Your task to perform on an android device: find snoozed emails in the gmail app Image 0: 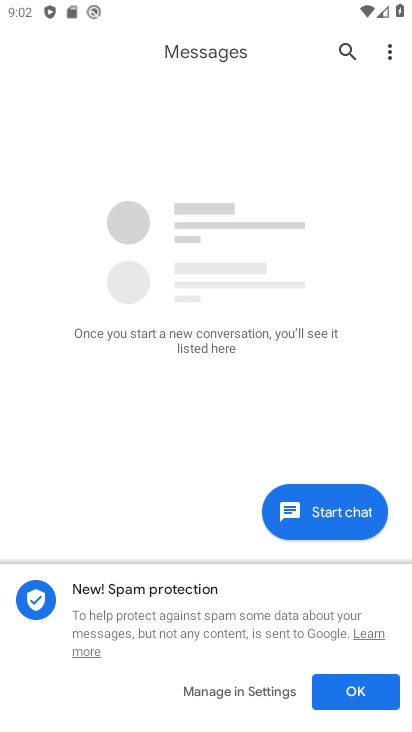
Step 0: press home button
Your task to perform on an android device: find snoozed emails in the gmail app Image 1: 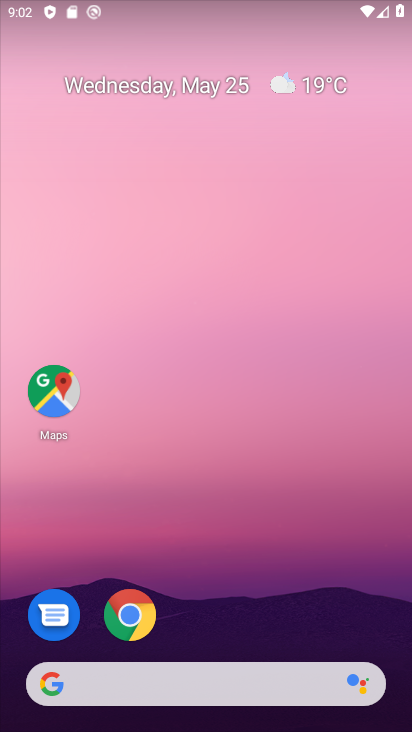
Step 1: drag from (229, 696) to (291, 215)
Your task to perform on an android device: find snoozed emails in the gmail app Image 2: 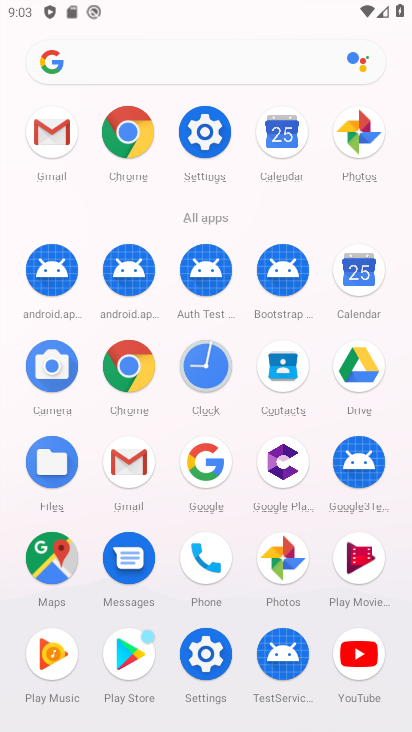
Step 2: click (57, 145)
Your task to perform on an android device: find snoozed emails in the gmail app Image 3: 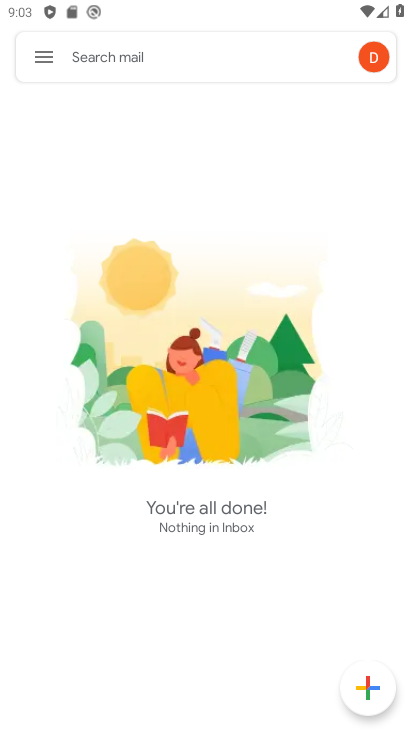
Step 3: click (46, 53)
Your task to perform on an android device: find snoozed emails in the gmail app Image 4: 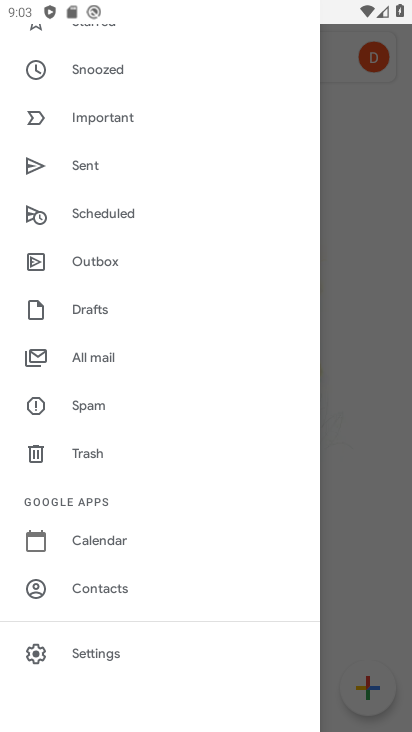
Step 4: click (112, 66)
Your task to perform on an android device: find snoozed emails in the gmail app Image 5: 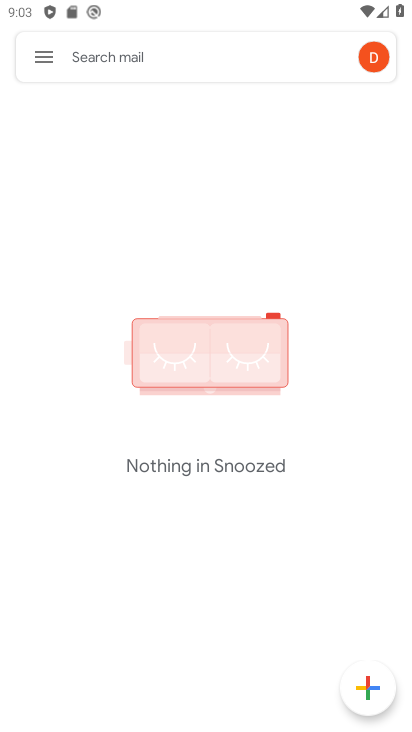
Step 5: task complete